Your task to perform on an android device: visit the assistant section in the google photos Image 0: 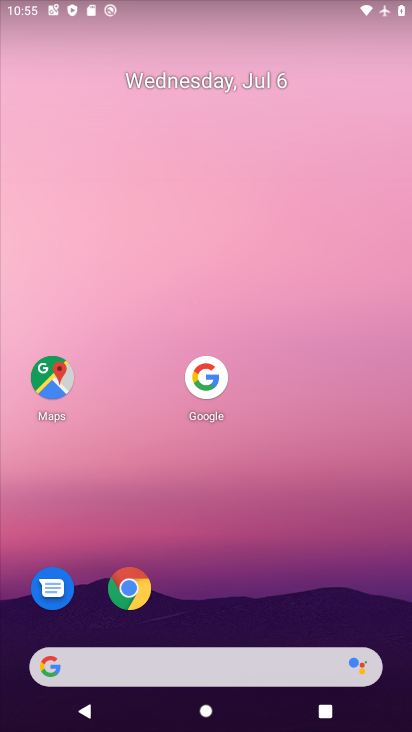
Step 0: drag from (227, 663) to (379, 37)
Your task to perform on an android device: visit the assistant section in the google photos Image 1: 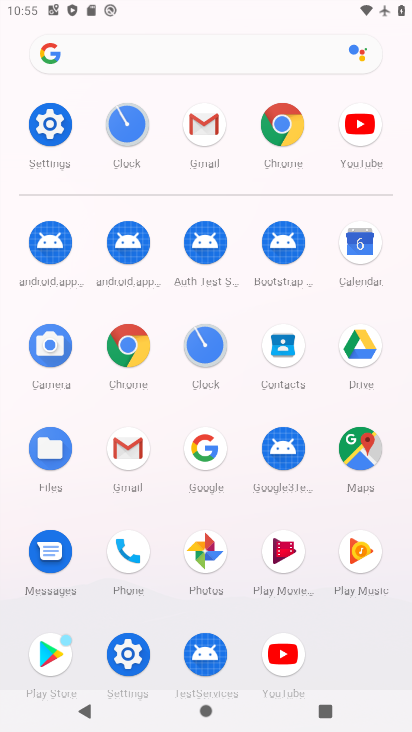
Step 1: click (203, 558)
Your task to perform on an android device: visit the assistant section in the google photos Image 2: 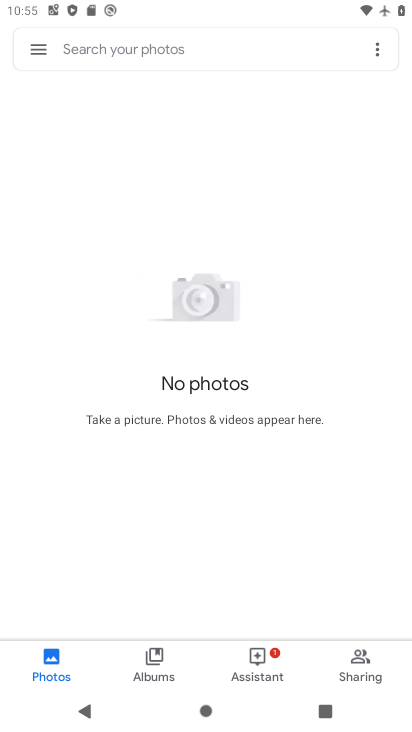
Step 2: click (264, 672)
Your task to perform on an android device: visit the assistant section in the google photos Image 3: 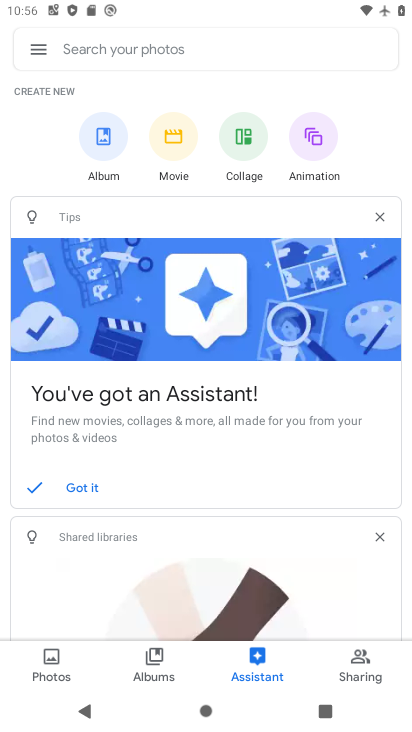
Step 3: task complete